Your task to perform on an android device: turn on showing notifications on the lock screen Image 0: 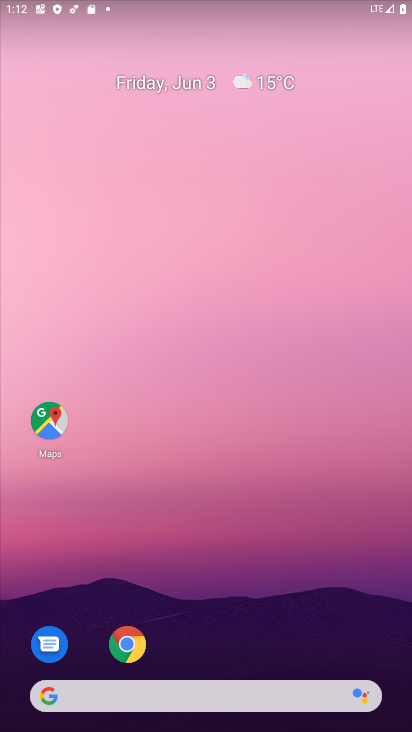
Step 0: drag from (224, 621) to (314, 28)
Your task to perform on an android device: turn on showing notifications on the lock screen Image 1: 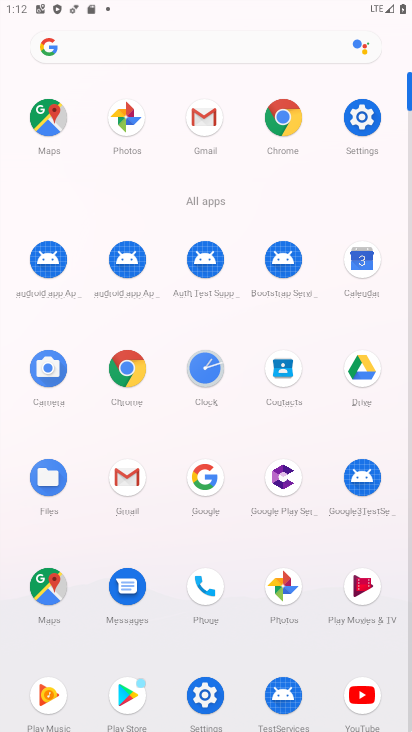
Step 1: click (205, 689)
Your task to perform on an android device: turn on showing notifications on the lock screen Image 2: 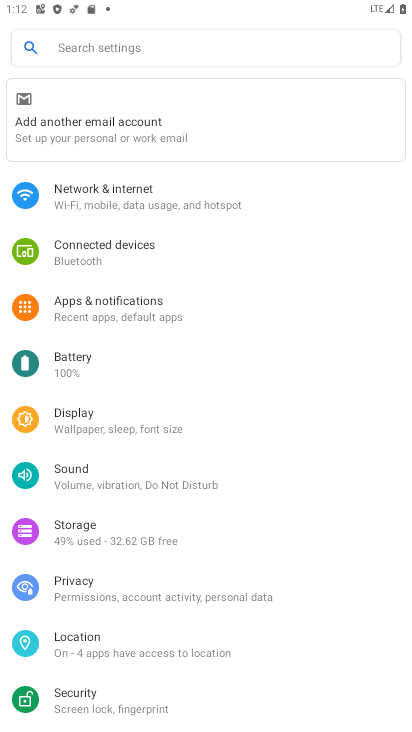
Step 2: click (143, 316)
Your task to perform on an android device: turn on showing notifications on the lock screen Image 3: 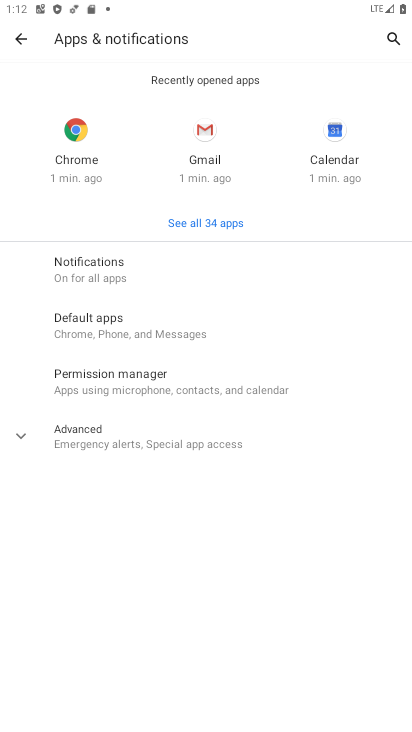
Step 3: click (118, 275)
Your task to perform on an android device: turn on showing notifications on the lock screen Image 4: 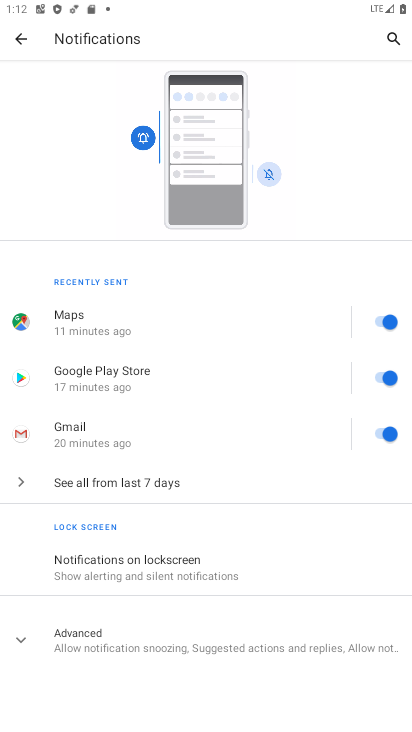
Step 4: drag from (136, 526) to (140, 450)
Your task to perform on an android device: turn on showing notifications on the lock screen Image 5: 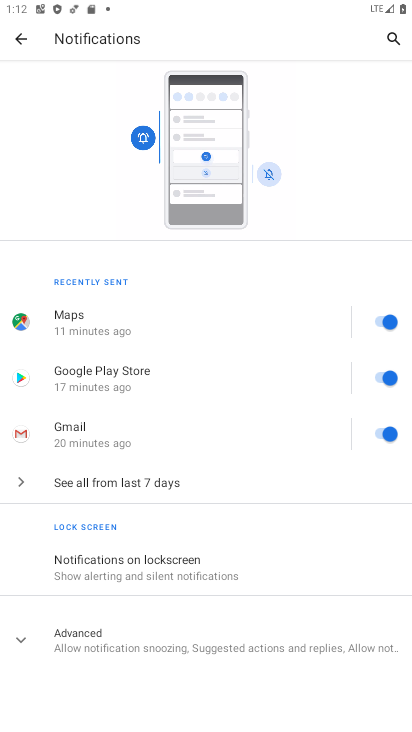
Step 5: click (155, 578)
Your task to perform on an android device: turn on showing notifications on the lock screen Image 6: 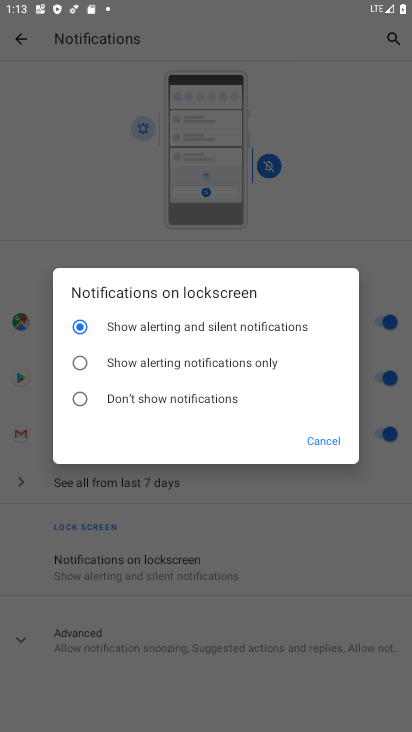
Step 6: task complete